Your task to perform on an android device: Open my contact list Image 0: 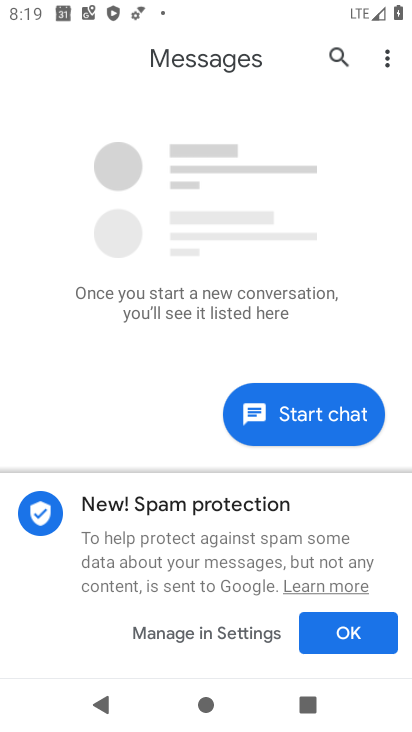
Step 0: press home button
Your task to perform on an android device: Open my contact list Image 1: 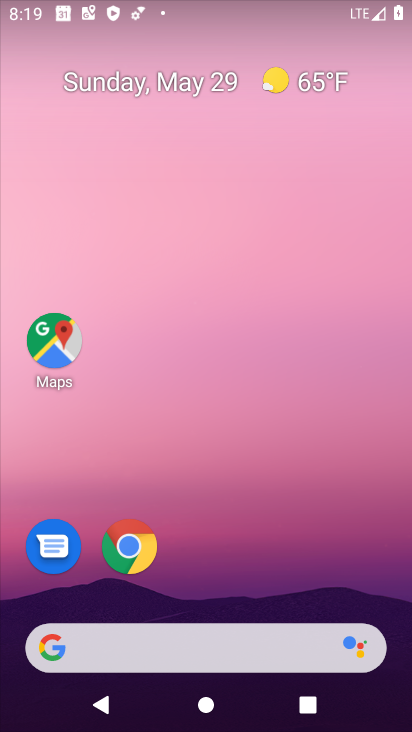
Step 1: drag from (168, 617) to (201, 126)
Your task to perform on an android device: Open my contact list Image 2: 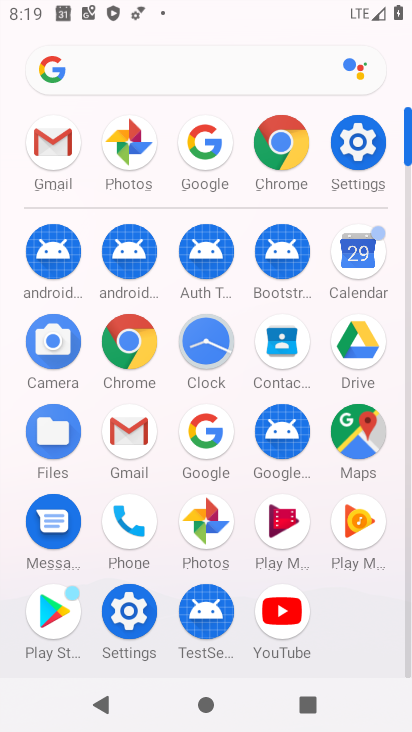
Step 2: click (297, 342)
Your task to perform on an android device: Open my contact list Image 3: 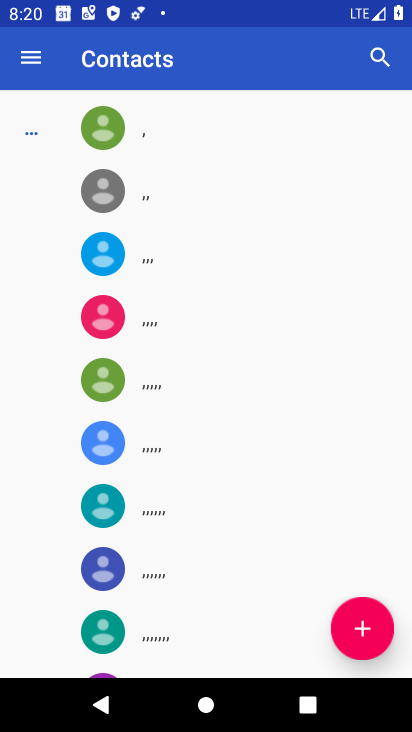
Step 3: task complete